Your task to perform on an android device: What time is it in New York? Image 0: 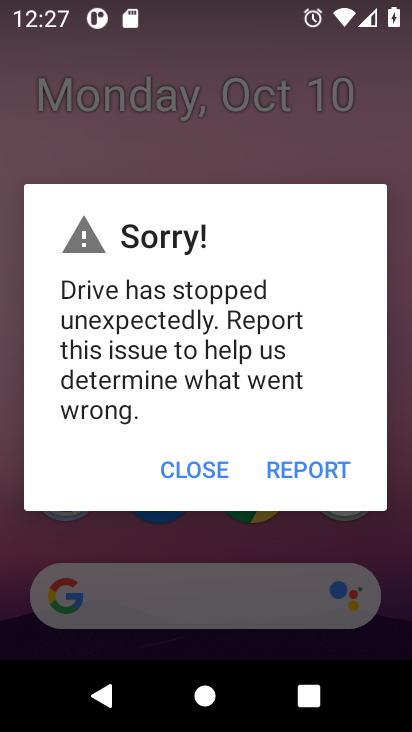
Step 0: click (188, 473)
Your task to perform on an android device: What time is it in New York? Image 1: 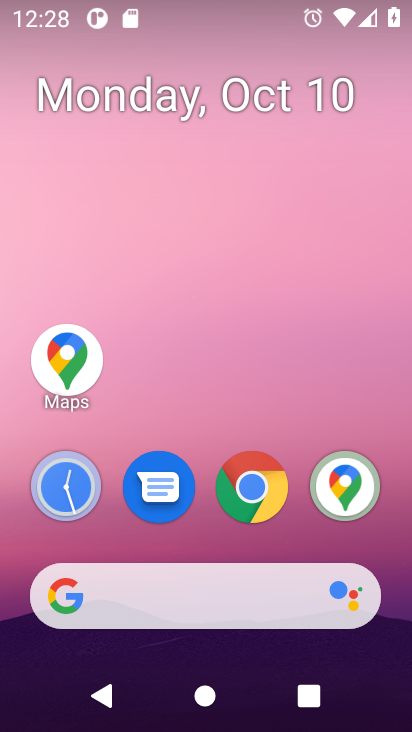
Step 1: drag from (199, 537) to (219, 85)
Your task to perform on an android device: What time is it in New York? Image 2: 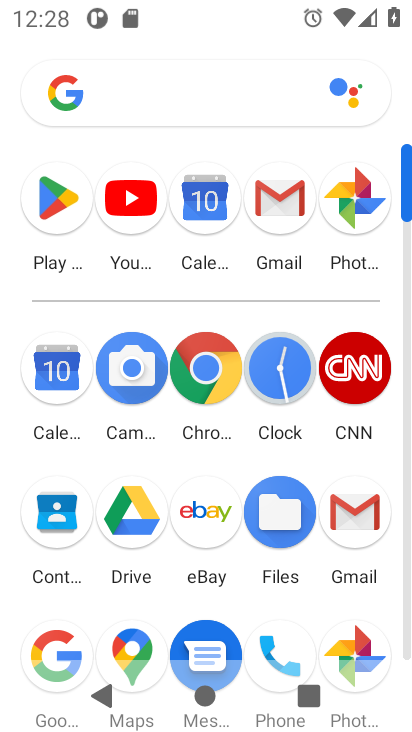
Step 2: click (205, 371)
Your task to perform on an android device: What time is it in New York? Image 3: 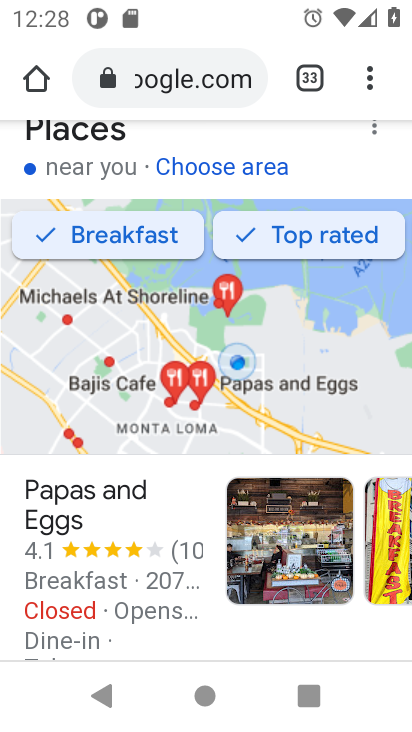
Step 3: drag from (367, 86) to (87, 159)
Your task to perform on an android device: What time is it in New York? Image 4: 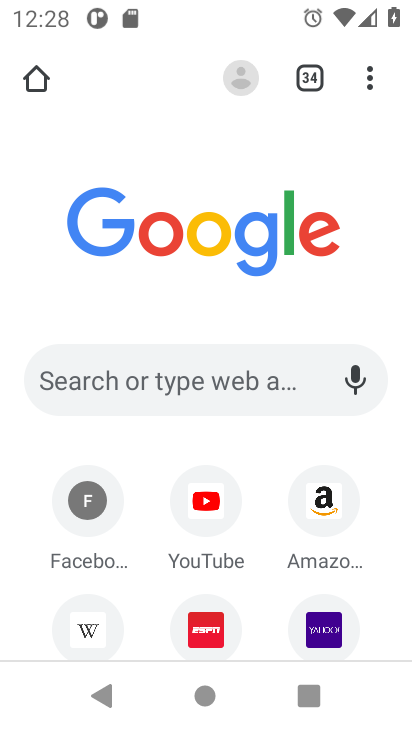
Step 4: click (195, 407)
Your task to perform on an android device: What time is it in New York? Image 5: 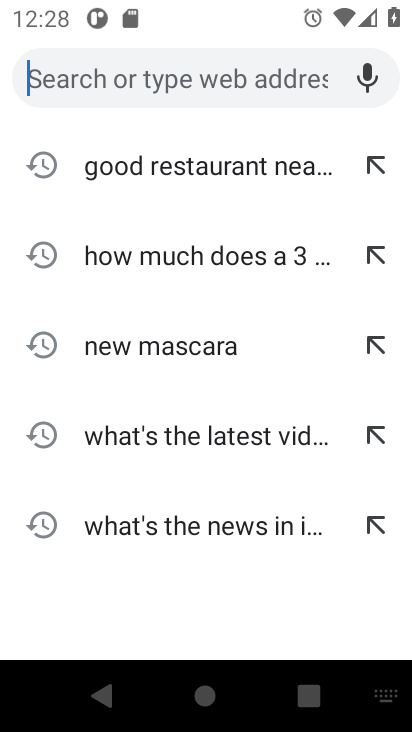
Step 5: type "What time is it in New York?"
Your task to perform on an android device: What time is it in New York? Image 6: 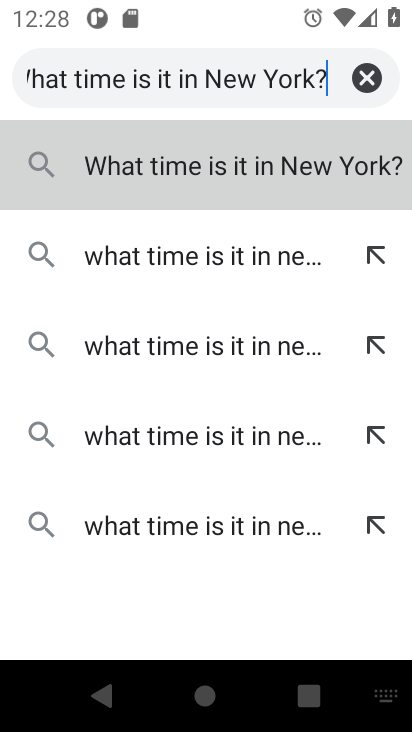
Step 6: click (255, 173)
Your task to perform on an android device: What time is it in New York? Image 7: 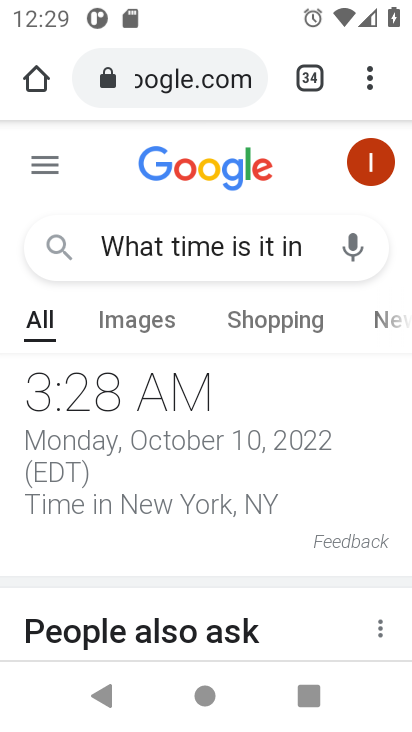
Step 7: task complete